Your task to perform on an android device: turn on priority inbox in the gmail app Image 0: 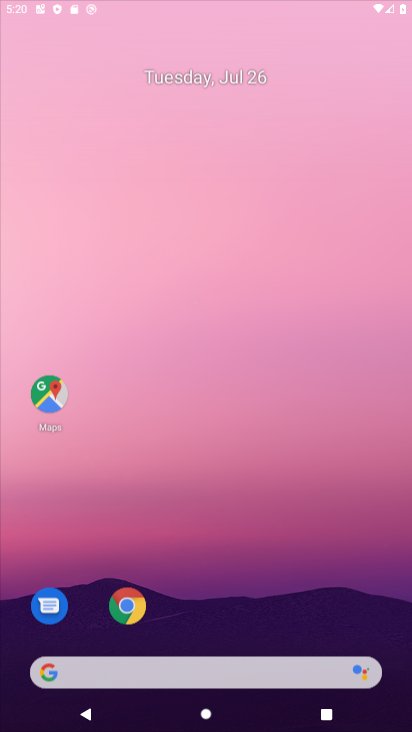
Step 0: press home button
Your task to perform on an android device: turn on priority inbox in the gmail app Image 1: 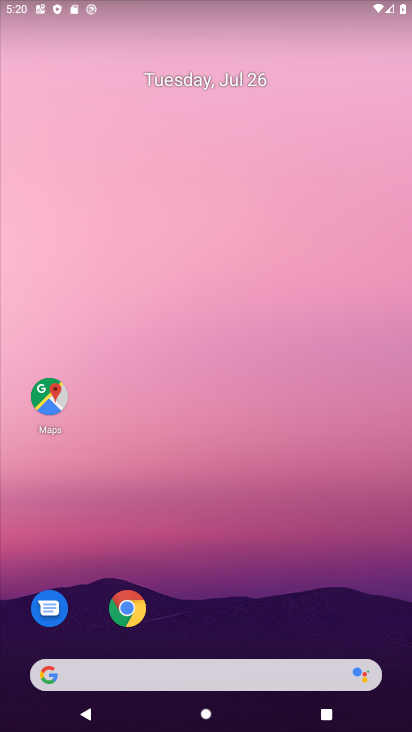
Step 1: drag from (220, 542) to (146, 147)
Your task to perform on an android device: turn on priority inbox in the gmail app Image 2: 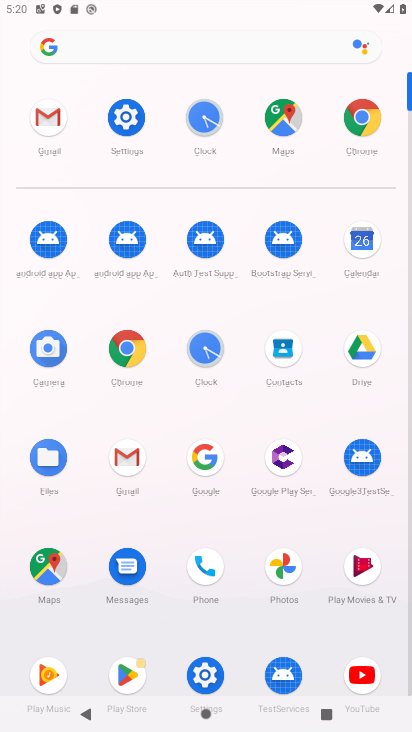
Step 2: click (44, 125)
Your task to perform on an android device: turn on priority inbox in the gmail app Image 3: 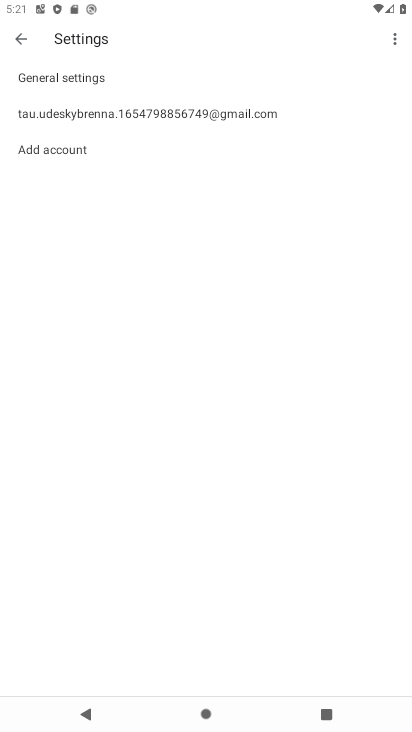
Step 3: click (76, 115)
Your task to perform on an android device: turn on priority inbox in the gmail app Image 4: 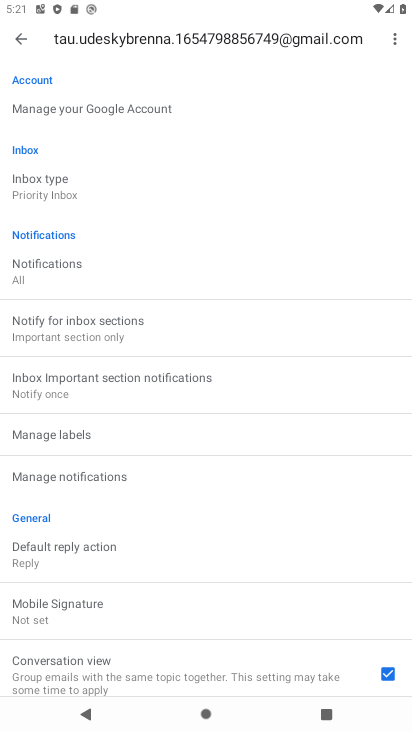
Step 4: click (62, 186)
Your task to perform on an android device: turn on priority inbox in the gmail app Image 5: 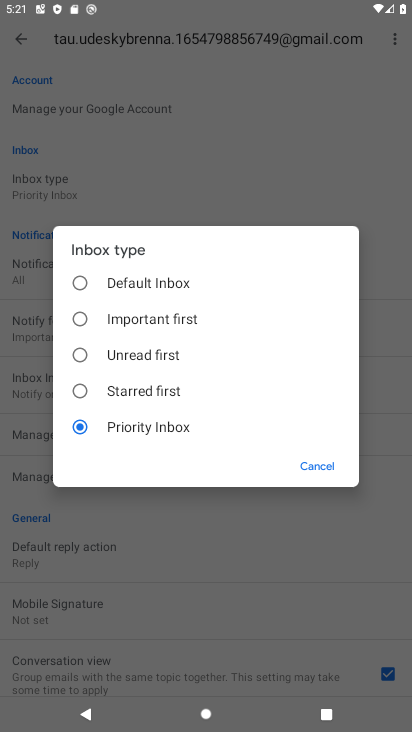
Step 5: task complete